Your task to perform on an android device: open wifi settings Image 0: 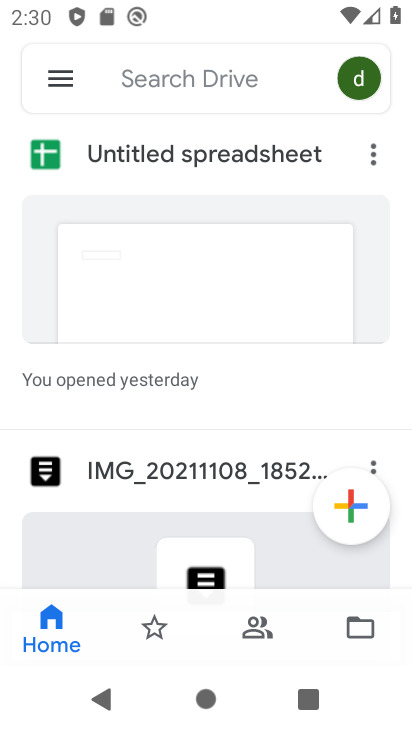
Step 0: press home button
Your task to perform on an android device: open wifi settings Image 1: 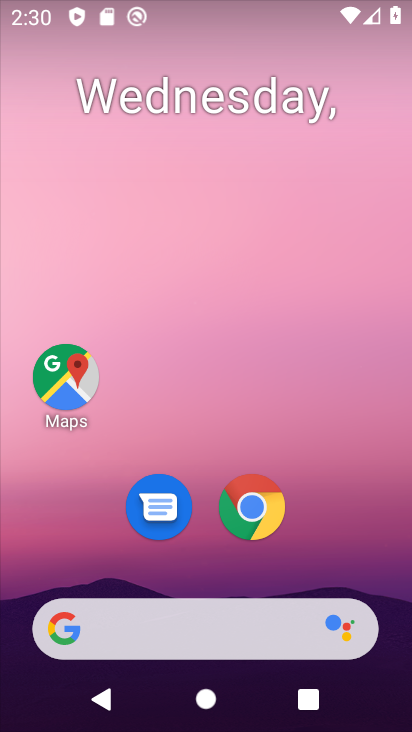
Step 1: drag from (322, 434) to (360, 114)
Your task to perform on an android device: open wifi settings Image 2: 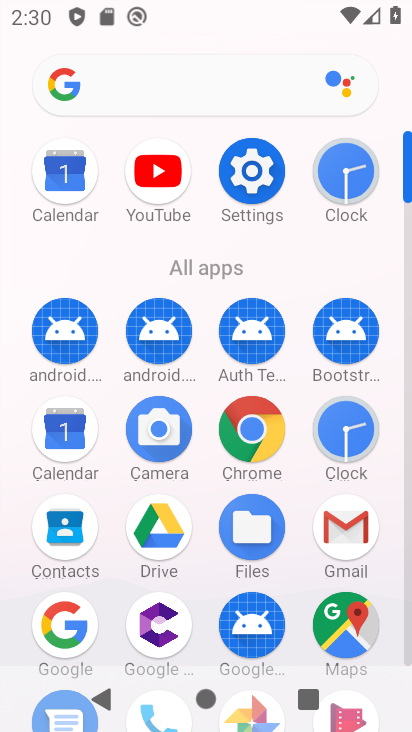
Step 2: click (280, 140)
Your task to perform on an android device: open wifi settings Image 3: 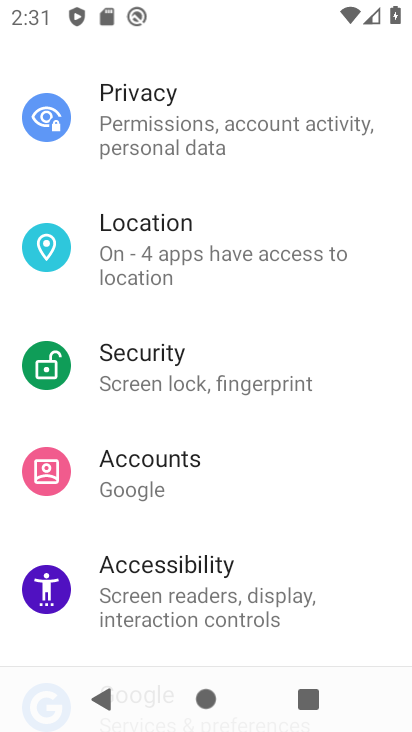
Step 3: drag from (120, 192) to (100, 582)
Your task to perform on an android device: open wifi settings Image 4: 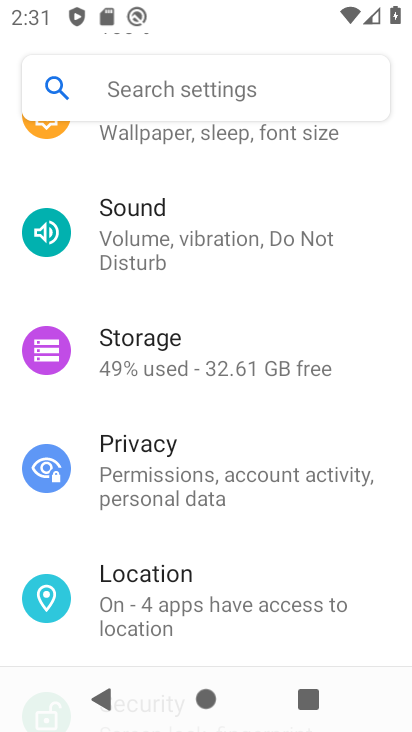
Step 4: drag from (249, 291) to (83, 703)
Your task to perform on an android device: open wifi settings Image 5: 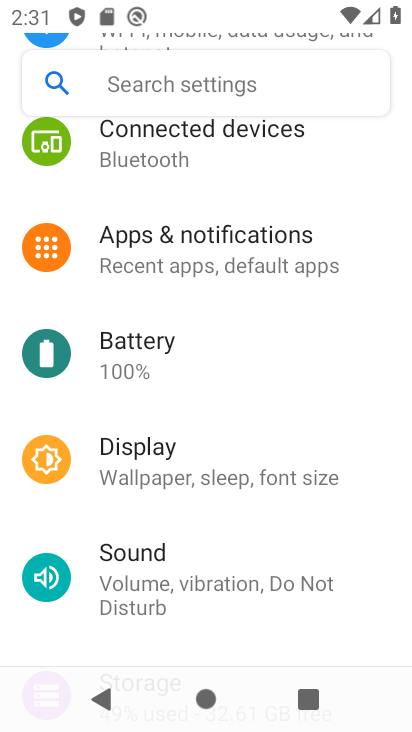
Step 5: drag from (203, 347) to (138, 597)
Your task to perform on an android device: open wifi settings Image 6: 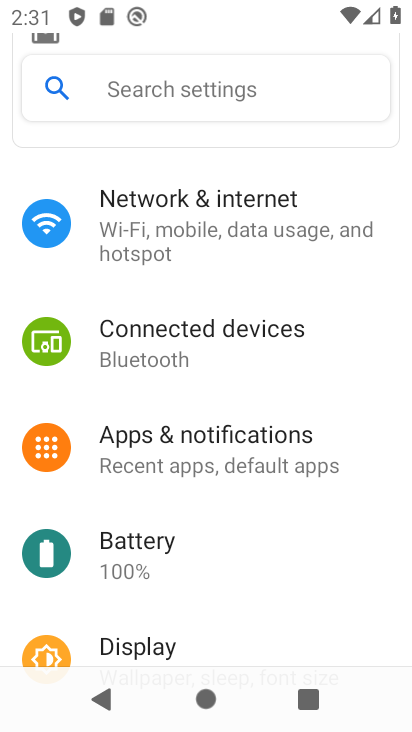
Step 6: click (228, 261)
Your task to perform on an android device: open wifi settings Image 7: 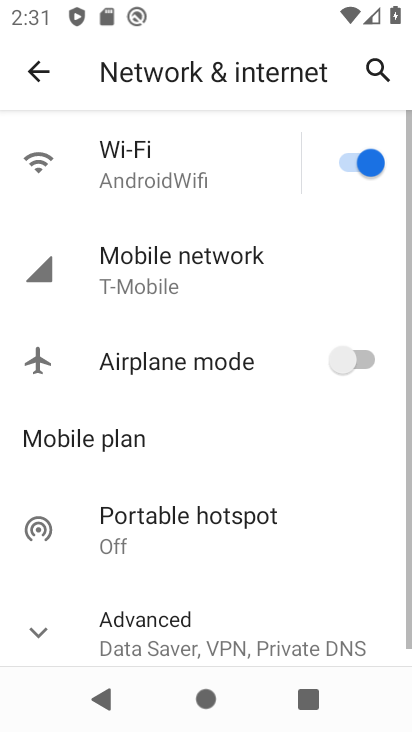
Step 7: click (180, 169)
Your task to perform on an android device: open wifi settings Image 8: 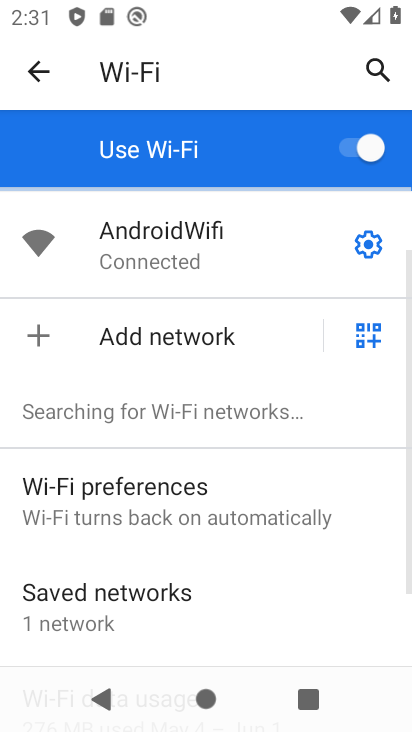
Step 8: task complete